Your task to perform on an android device: Search for pizza restaurants on Maps Image 0: 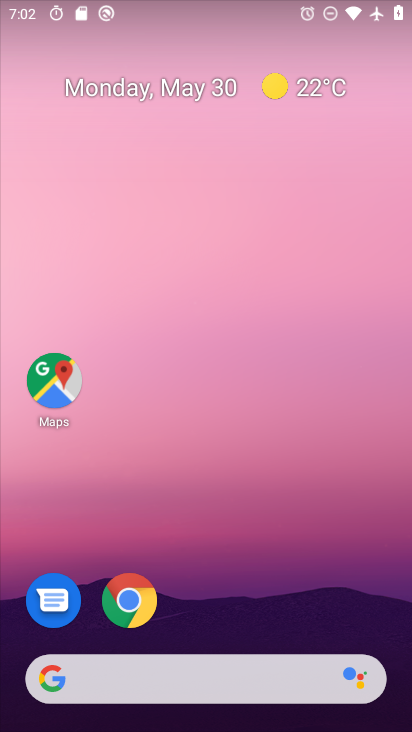
Step 0: press home button
Your task to perform on an android device: Search for pizza restaurants on Maps Image 1: 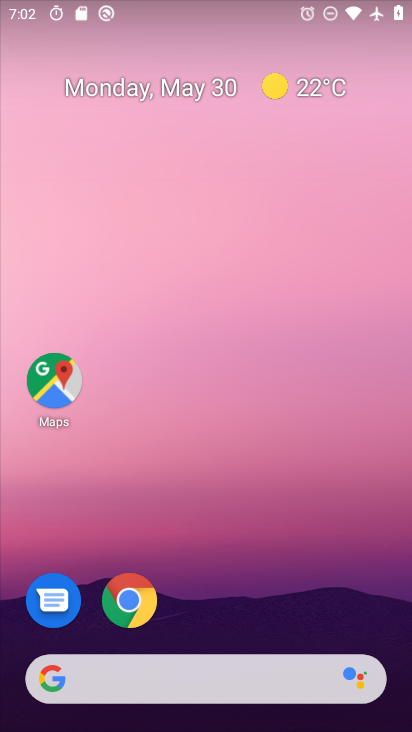
Step 1: click (65, 388)
Your task to perform on an android device: Search for pizza restaurants on Maps Image 2: 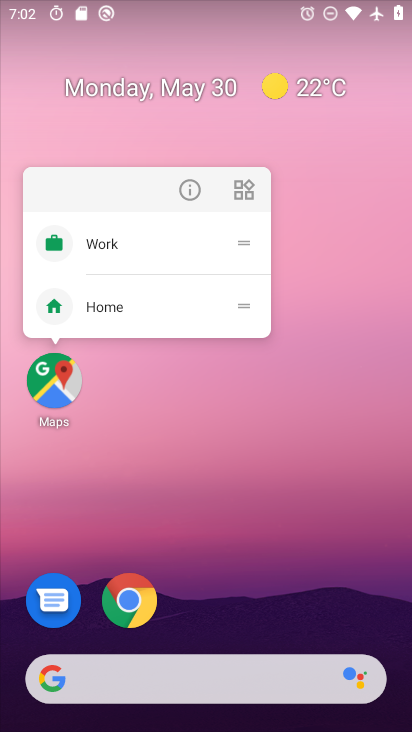
Step 2: click (354, 560)
Your task to perform on an android device: Search for pizza restaurants on Maps Image 3: 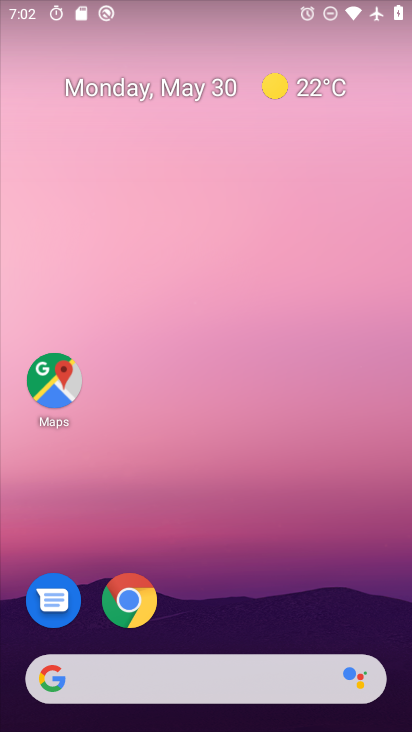
Step 3: drag from (338, 582) to (357, 60)
Your task to perform on an android device: Search for pizza restaurants on Maps Image 4: 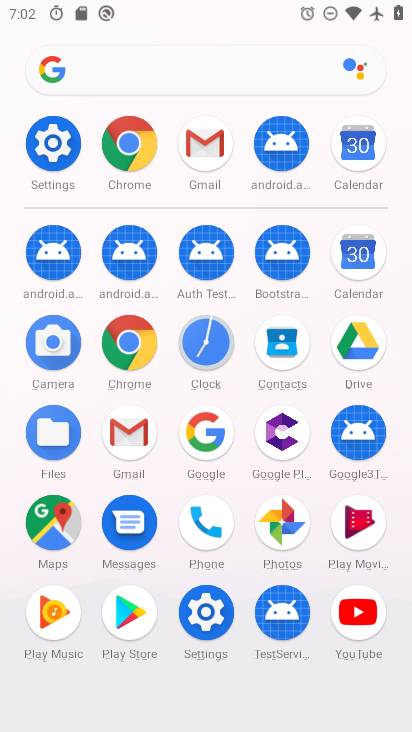
Step 4: click (46, 536)
Your task to perform on an android device: Search for pizza restaurants on Maps Image 5: 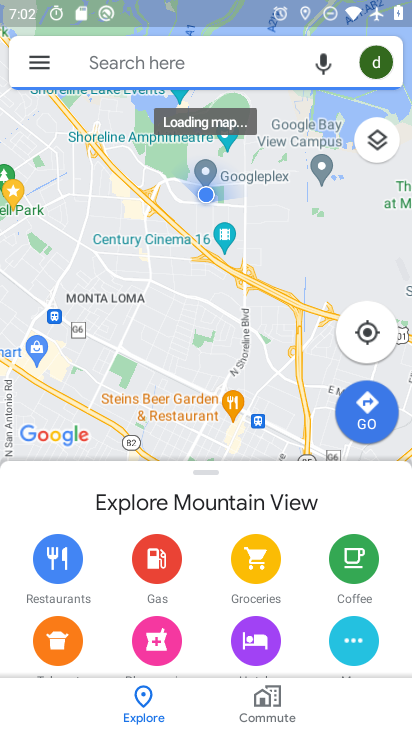
Step 5: click (219, 56)
Your task to perform on an android device: Search for pizza restaurants on Maps Image 6: 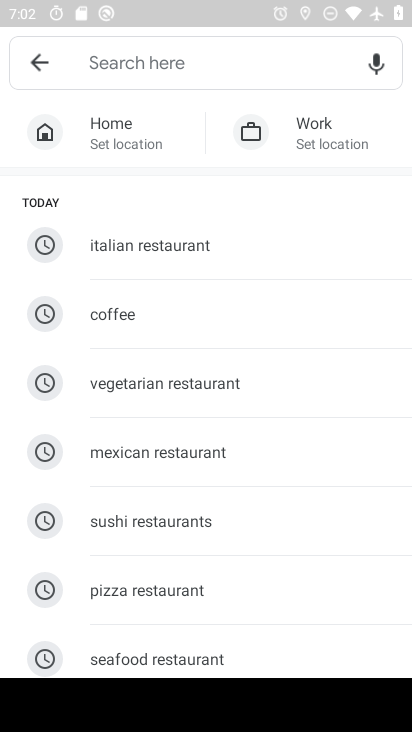
Step 6: click (144, 596)
Your task to perform on an android device: Search for pizza restaurants on Maps Image 7: 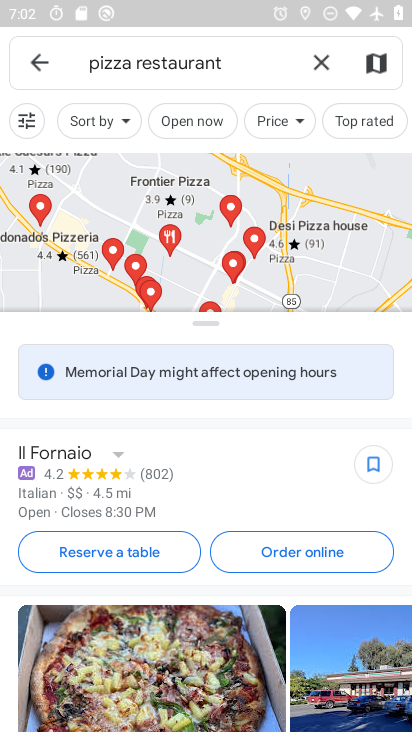
Step 7: task complete